Your task to perform on an android device: empty trash in the gmail app Image 0: 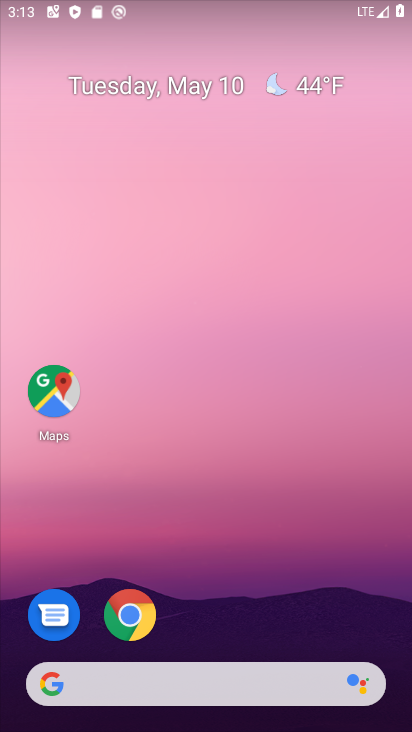
Step 0: drag from (270, 582) to (359, 120)
Your task to perform on an android device: empty trash in the gmail app Image 1: 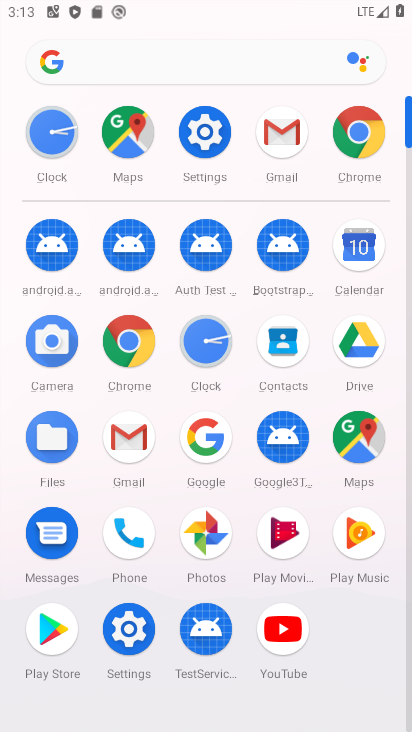
Step 1: click (142, 441)
Your task to perform on an android device: empty trash in the gmail app Image 2: 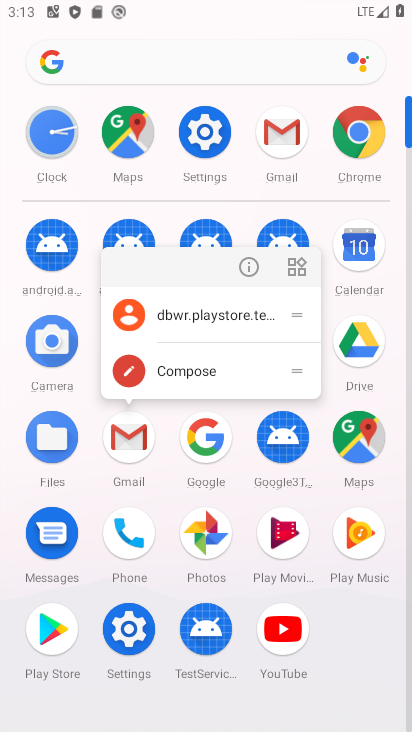
Step 2: click (133, 430)
Your task to perform on an android device: empty trash in the gmail app Image 3: 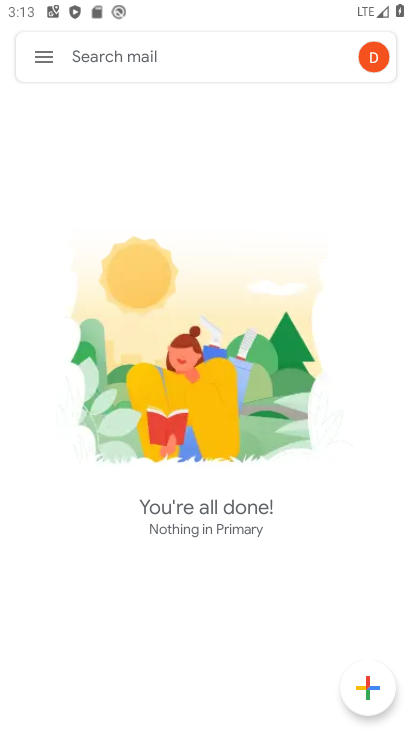
Step 3: click (41, 46)
Your task to perform on an android device: empty trash in the gmail app Image 4: 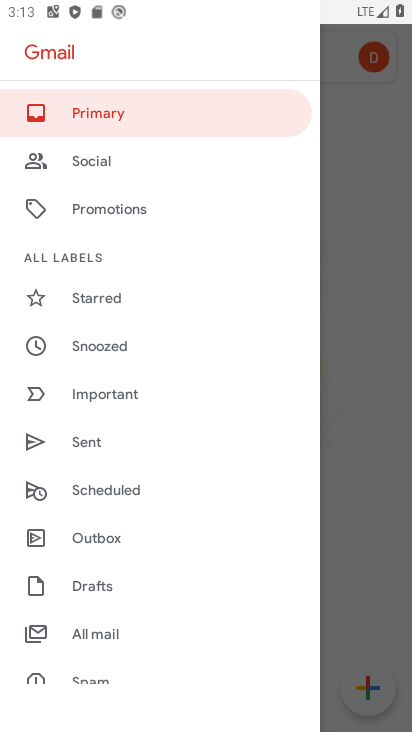
Step 4: drag from (126, 597) to (206, 191)
Your task to perform on an android device: empty trash in the gmail app Image 5: 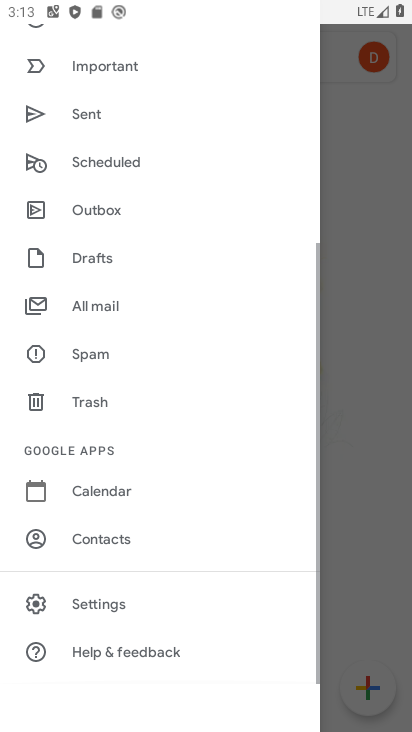
Step 5: drag from (90, 537) to (144, 230)
Your task to perform on an android device: empty trash in the gmail app Image 6: 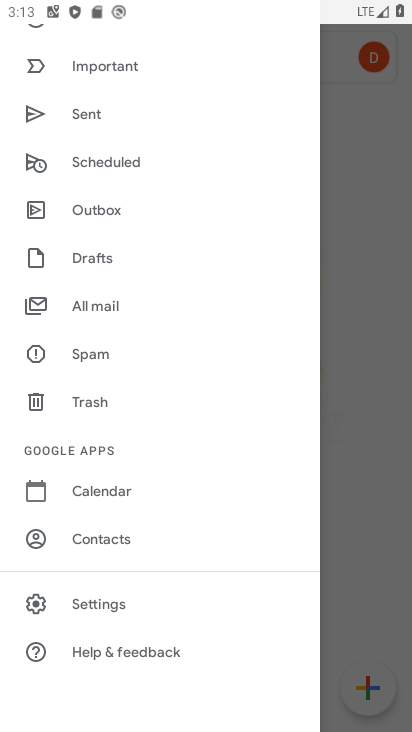
Step 6: click (80, 402)
Your task to perform on an android device: empty trash in the gmail app Image 7: 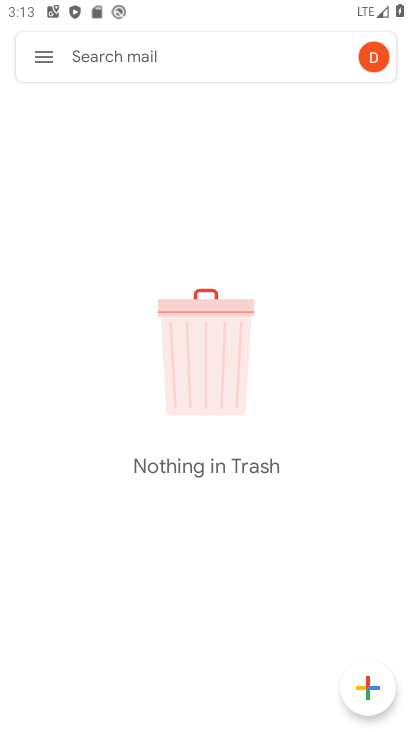
Step 7: task complete